Your task to perform on an android device: Add "alienware aurora" to the cart on bestbuy, then select checkout. Image 0: 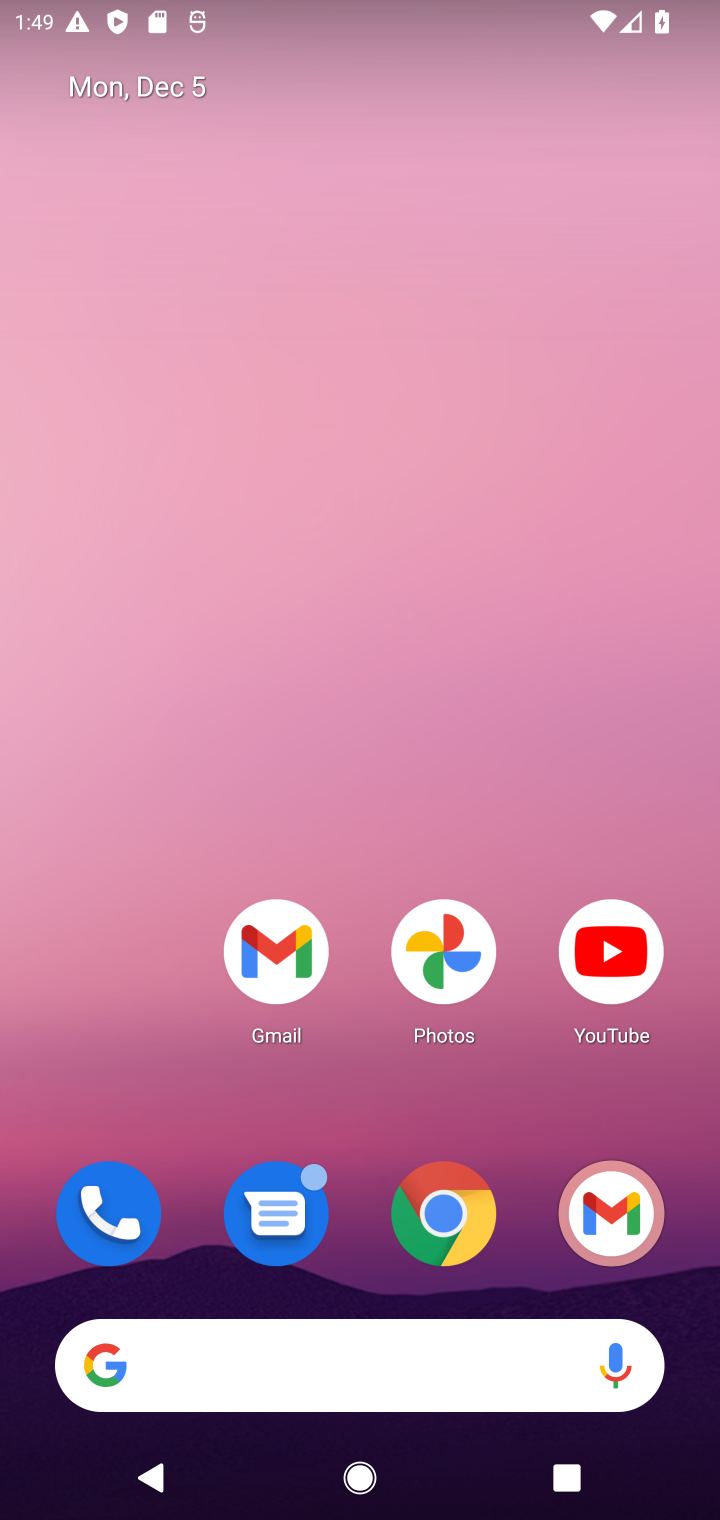
Step 0: click (452, 1215)
Your task to perform on an android device: Add "alienware aurora" to the cart on bestbuy, then select checkout. Image 1: 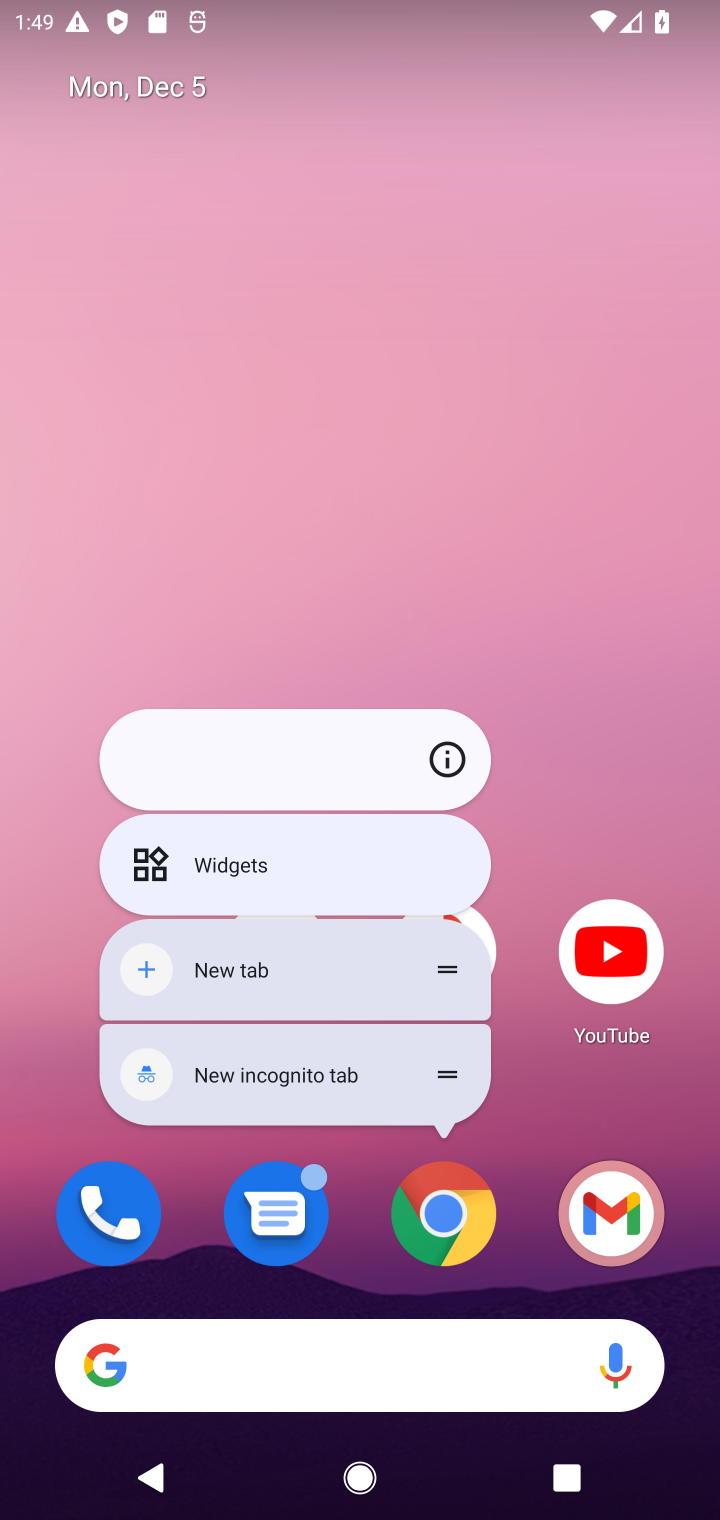
Step 1: click (452, 1215)
Your task to perform on an android device: Add "alienware aurora" to the cart on bestbuy, then select checkout. Image 2: 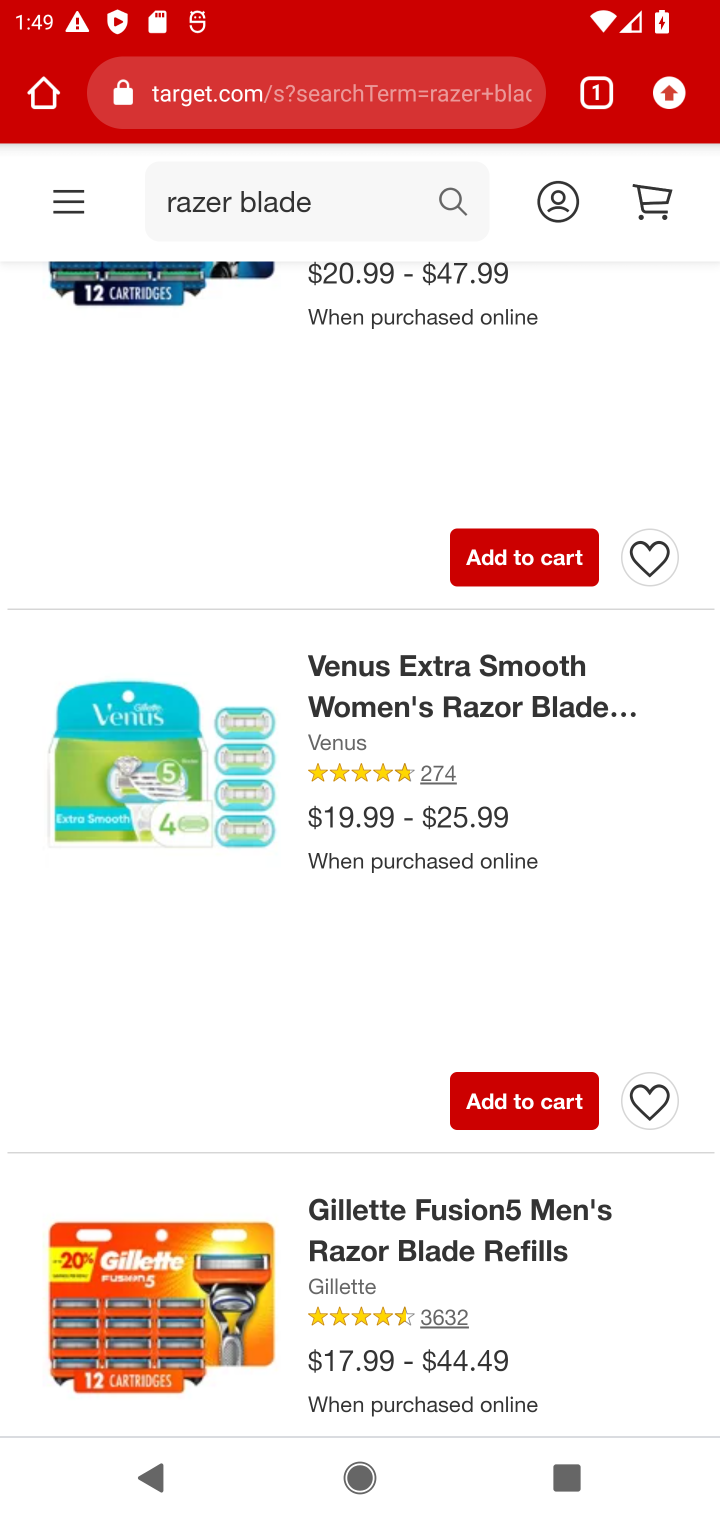
Step 2: click (248, 78)
Your task to perform on an android device: Add "alienware aurora" to the cart on bestbuy, then select checkout. Image 3: 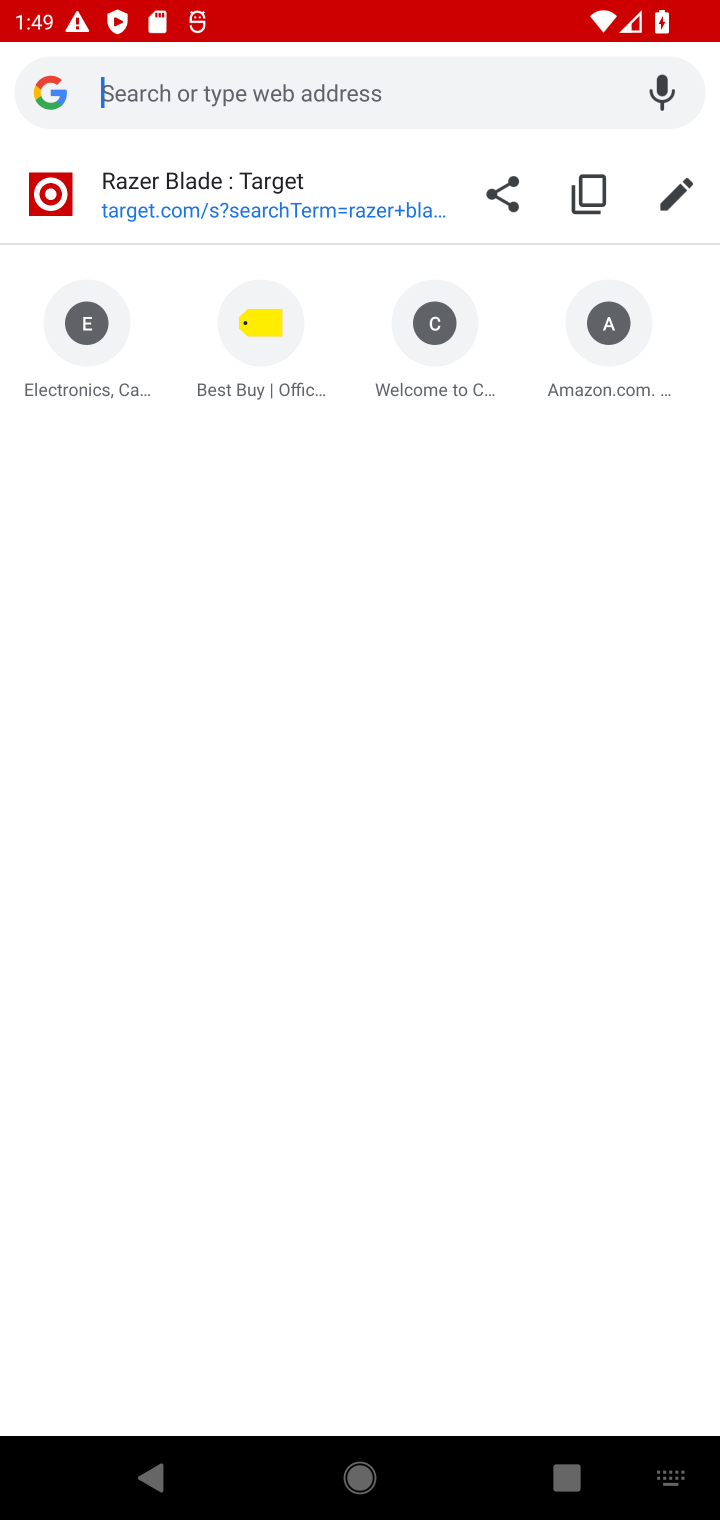
Step 3: click (242, 324)
Your task to perform on an android device: Add "alienware aurora" to the cart on bestbuy, then select checkout. Image 4: 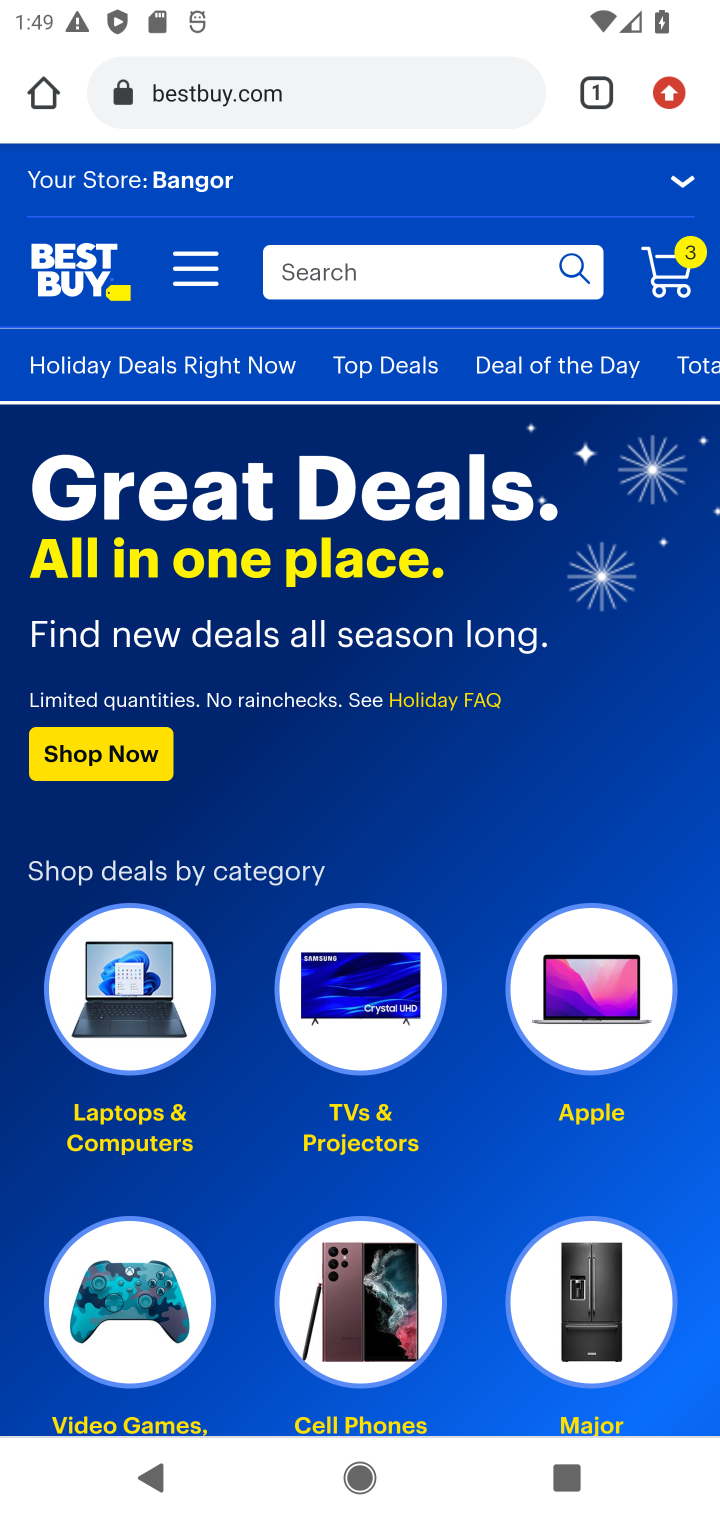
Step 4: click (380, 264)
Your task to perform on an android device: Add "alienware aurora" to the cart on bestbuy, then select checkout. Image 5: 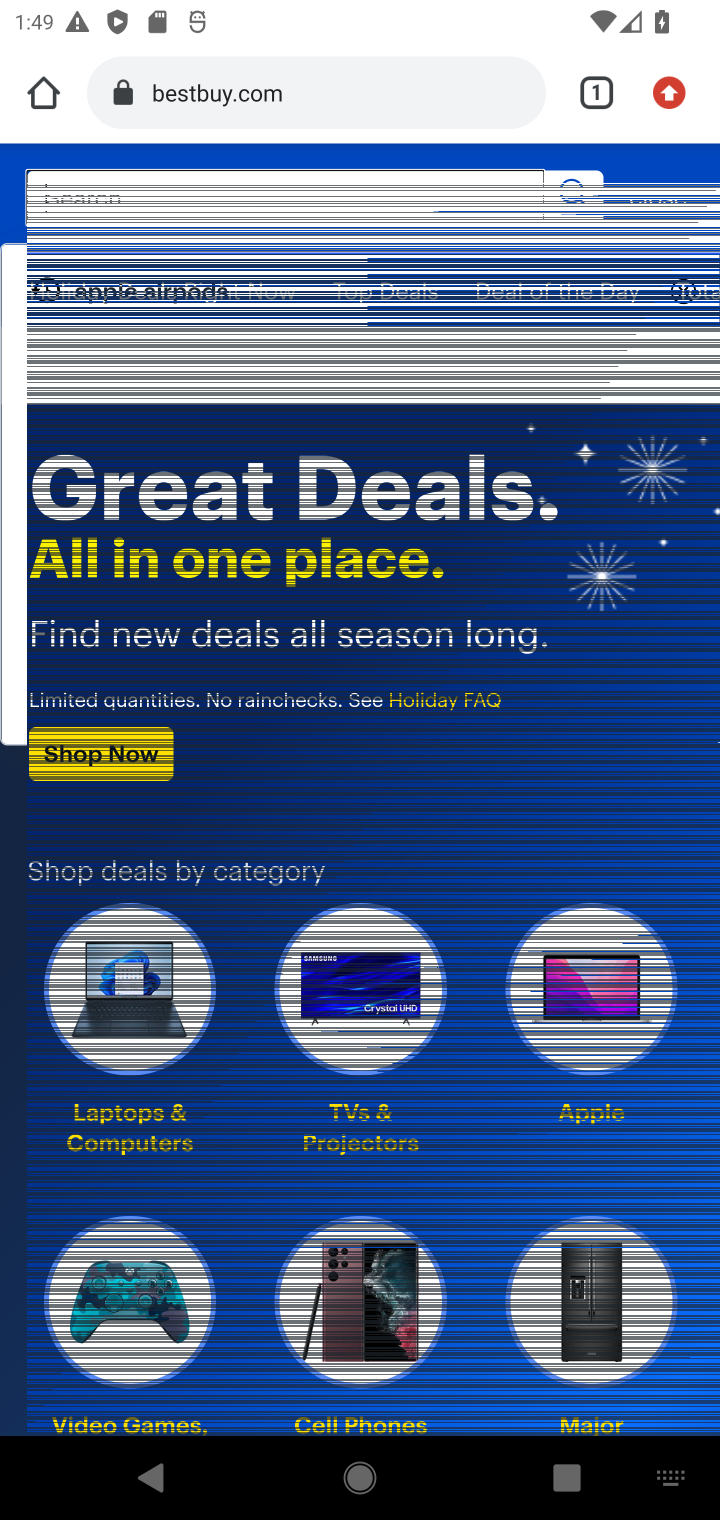
Step 5: type "alienware aurora"
Your task to perform on an android device: Add "alienware aurora" to the cart on bestbuy, then select checkout. Image 6: 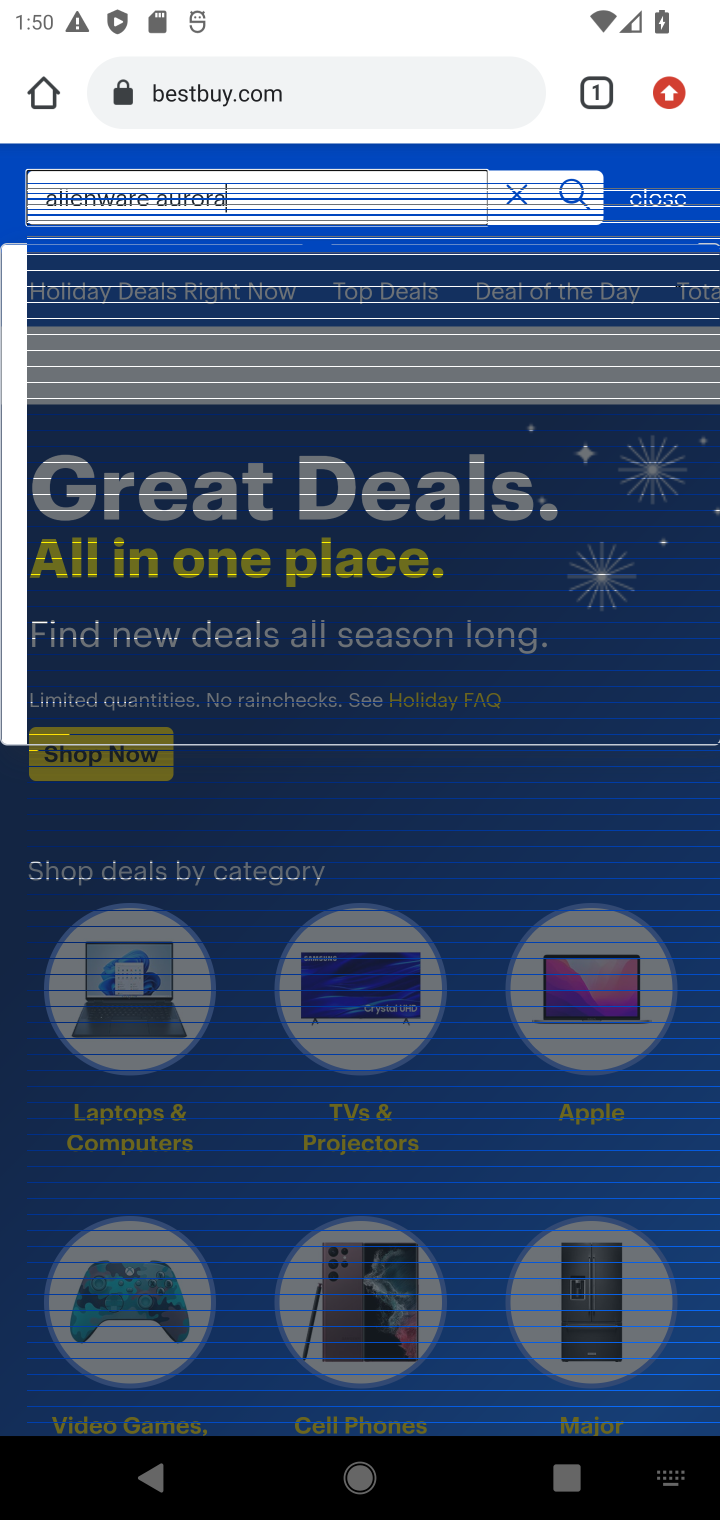
Step 6: click (201, 290)
Your task to perform on an android device: Add "alienware aurora" to the cart on bestbuy, then select checkout. Image 7: 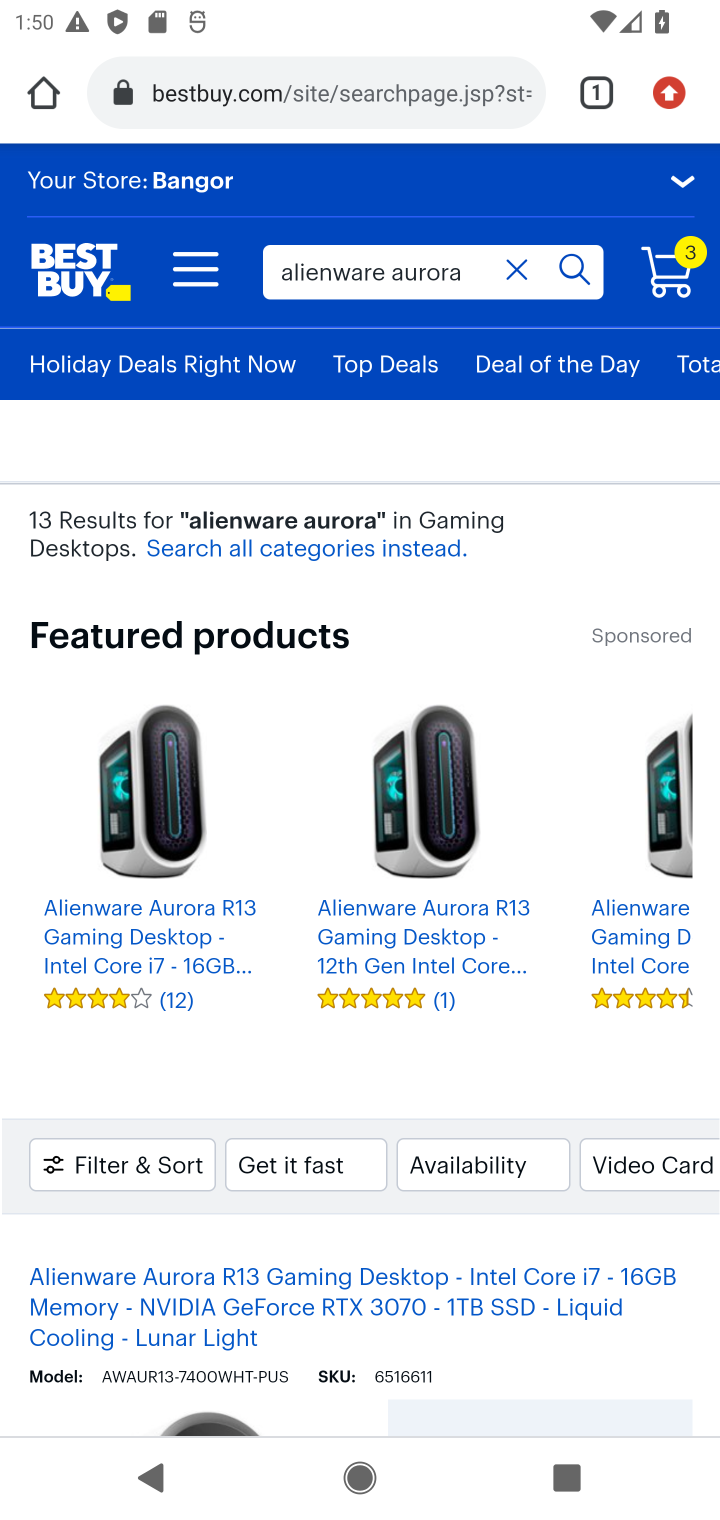
Step 7: drag from (370, 805) to (384, 386)
Your task to perform on an android device: Add "alienware aurora" to the cart on bestbuy, then select checkout. Image 8: 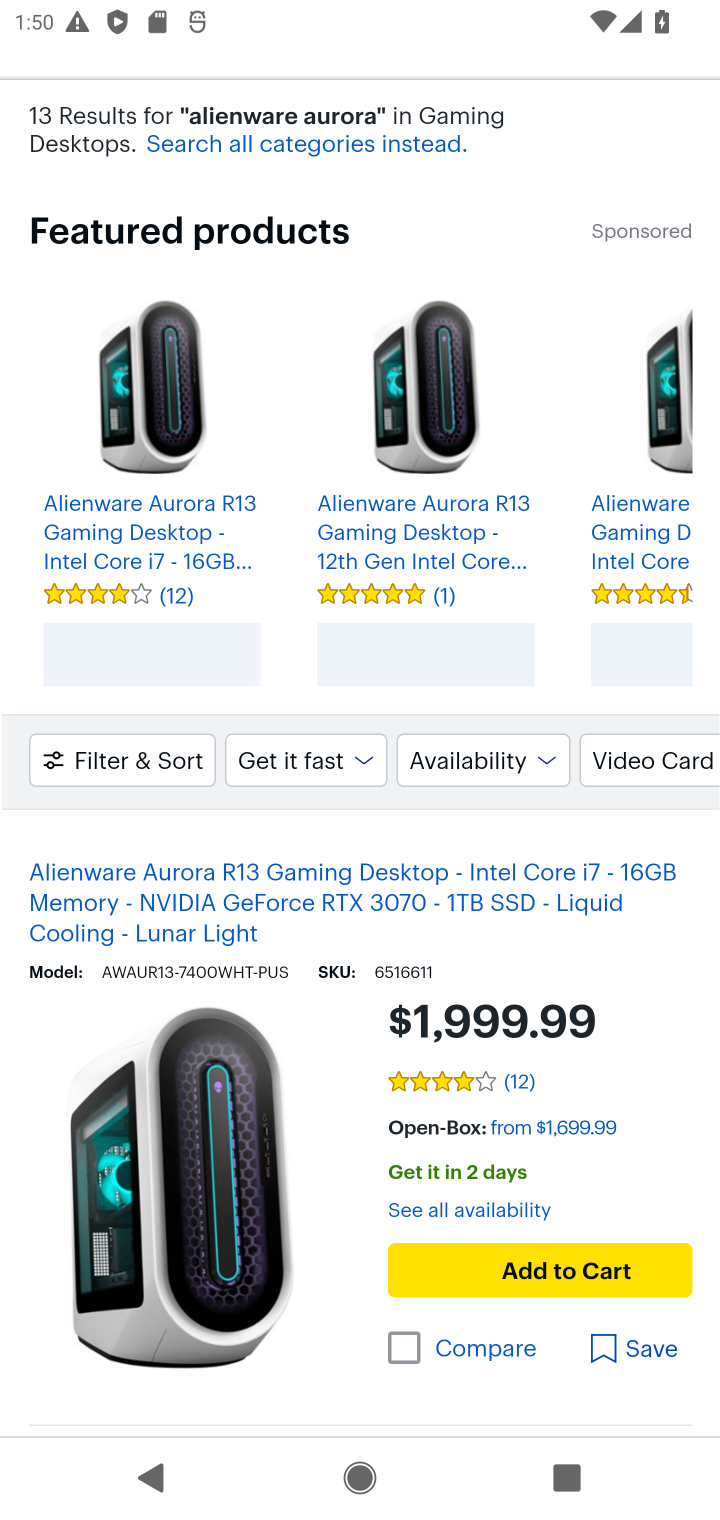
Step 8: click (555, 1183)
Your task to perform on an android device: Add "alienware aurora" to the cart on bestbuy, then select checkout. Image 9: 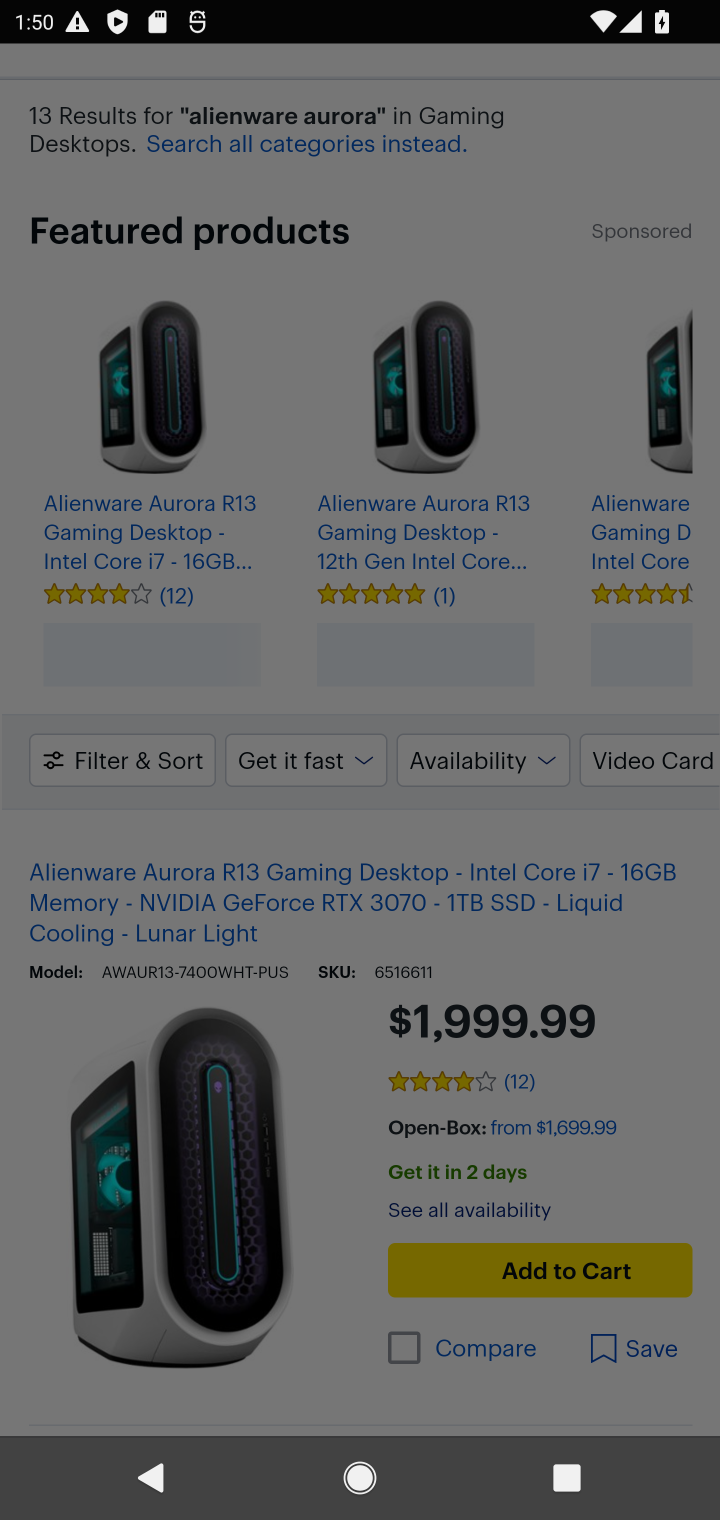
Step 9: click (549, 1259)
Your task to perform on an android device: Add "alienware aurora" to the cart on bestbuy, then select checkout. Image 10: 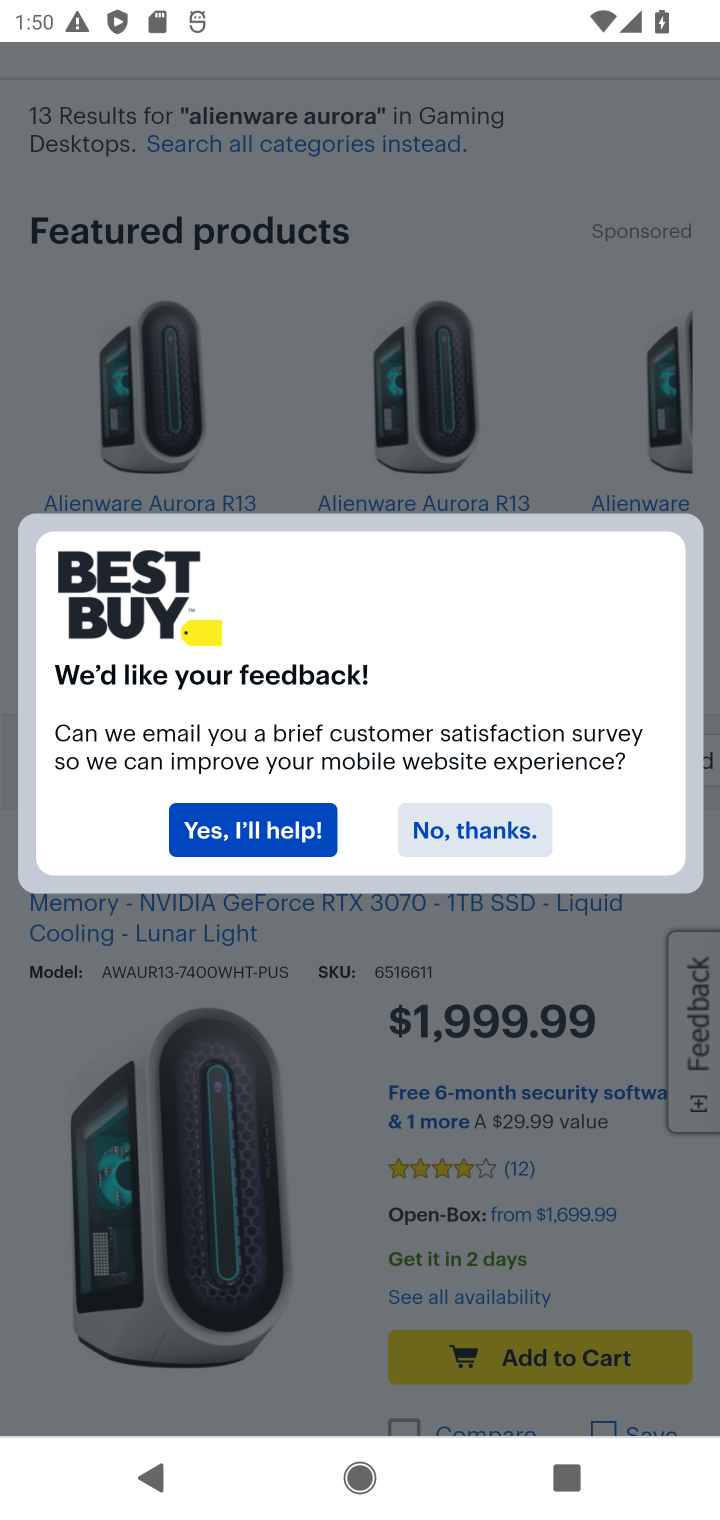
Step 10: click (465, 837)
Your task to perform on an android device: Add "alienware aurora" to the cart on bestbuy, then select checkout. Image 11: 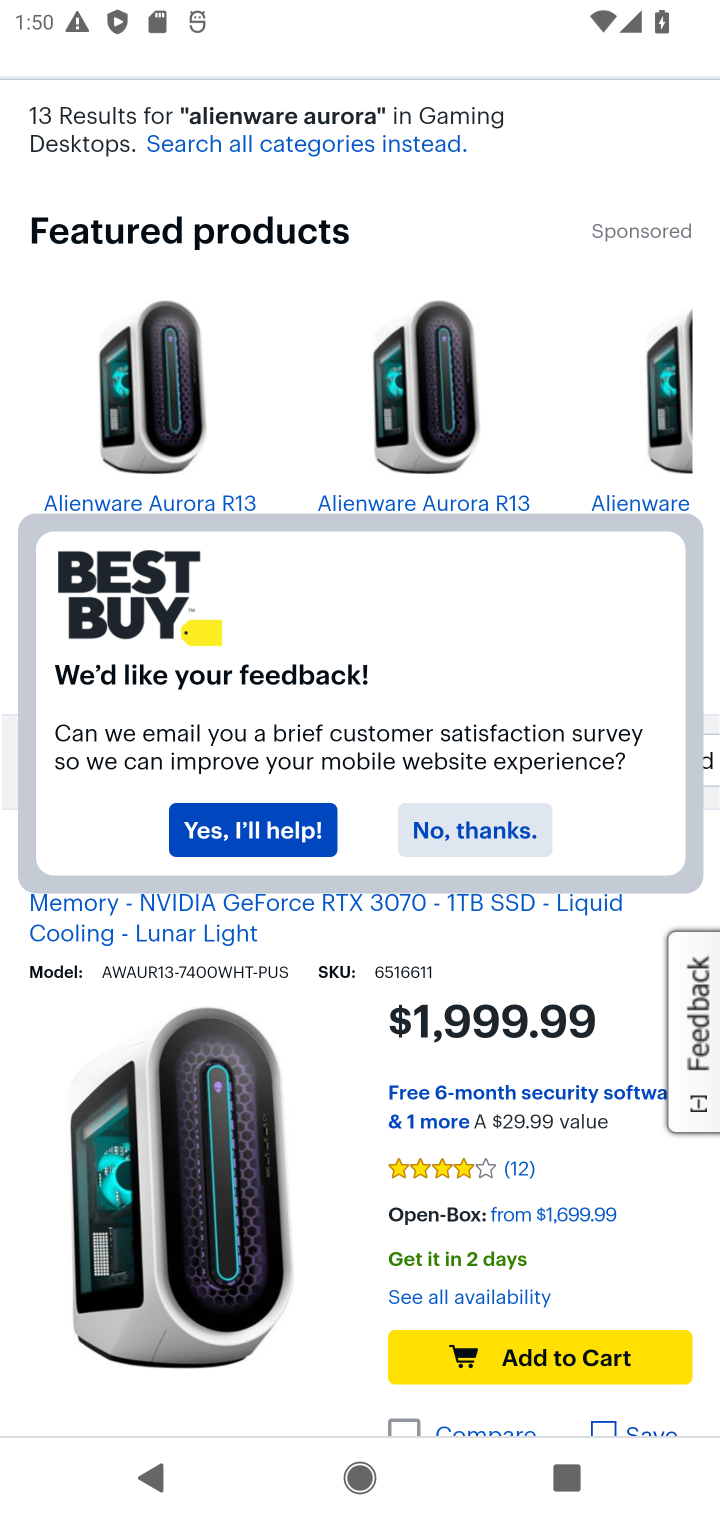
Step 11: click (507, 1350)
Your task to perform on an android device: Add "alienware aurora" to the cart on bestbuy, then select checkout. Image 12: 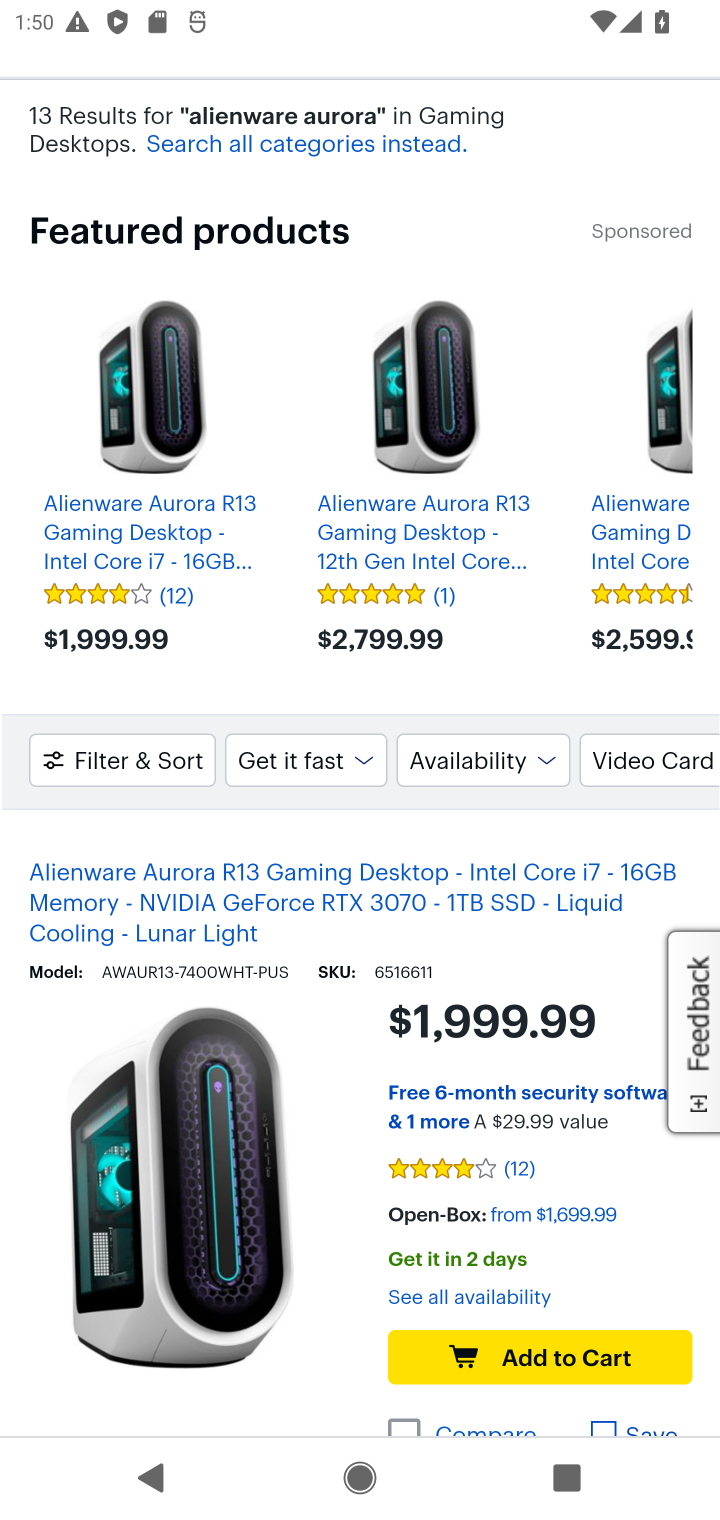
Step 12: click (512, 1357)
Your task to perform on an android device: Add "alienware aurora" to the cart on bestbuy, then select checkout. Image 13: 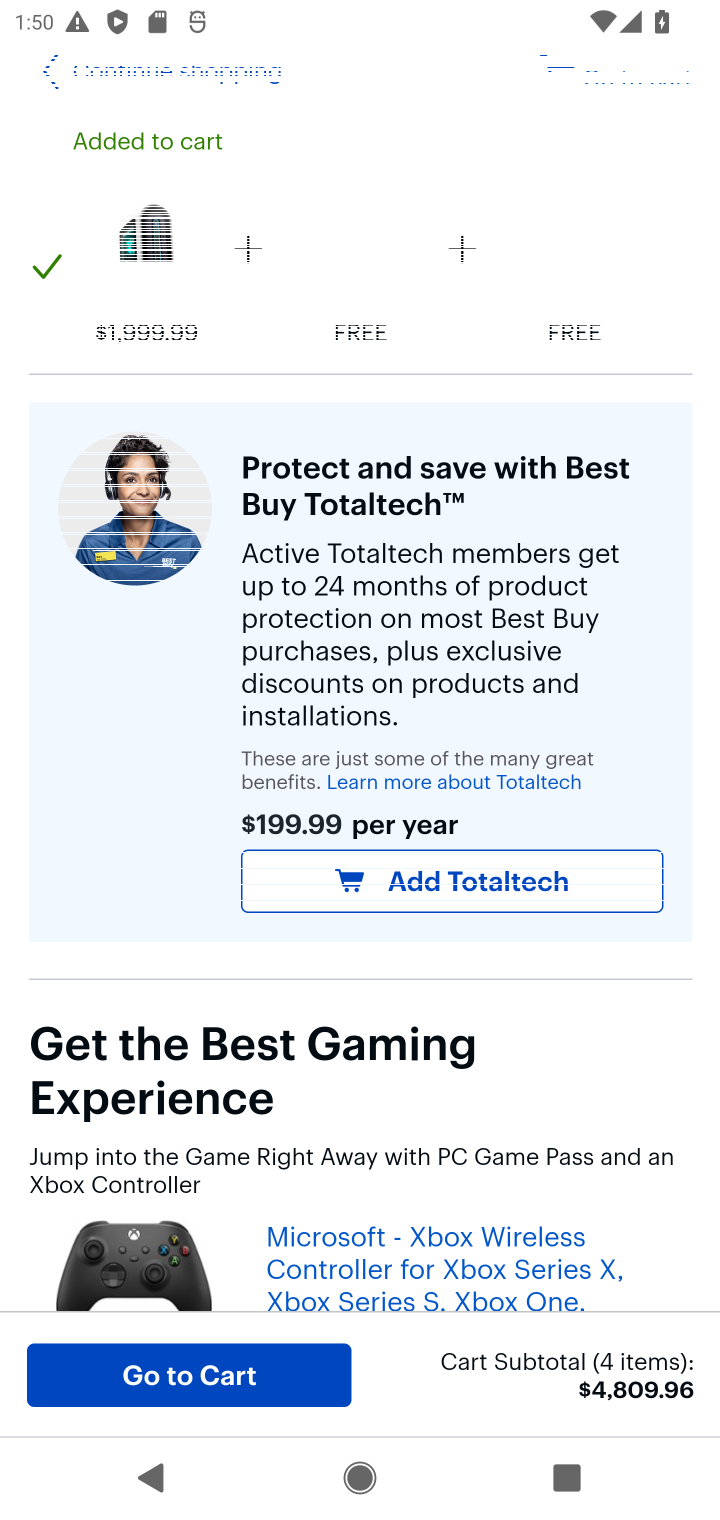
Step 13: click (645, 87)
Your task to perform on an android device: Add "alienware aurora" to the cart on bestbuy, then select checkout. Image 14: 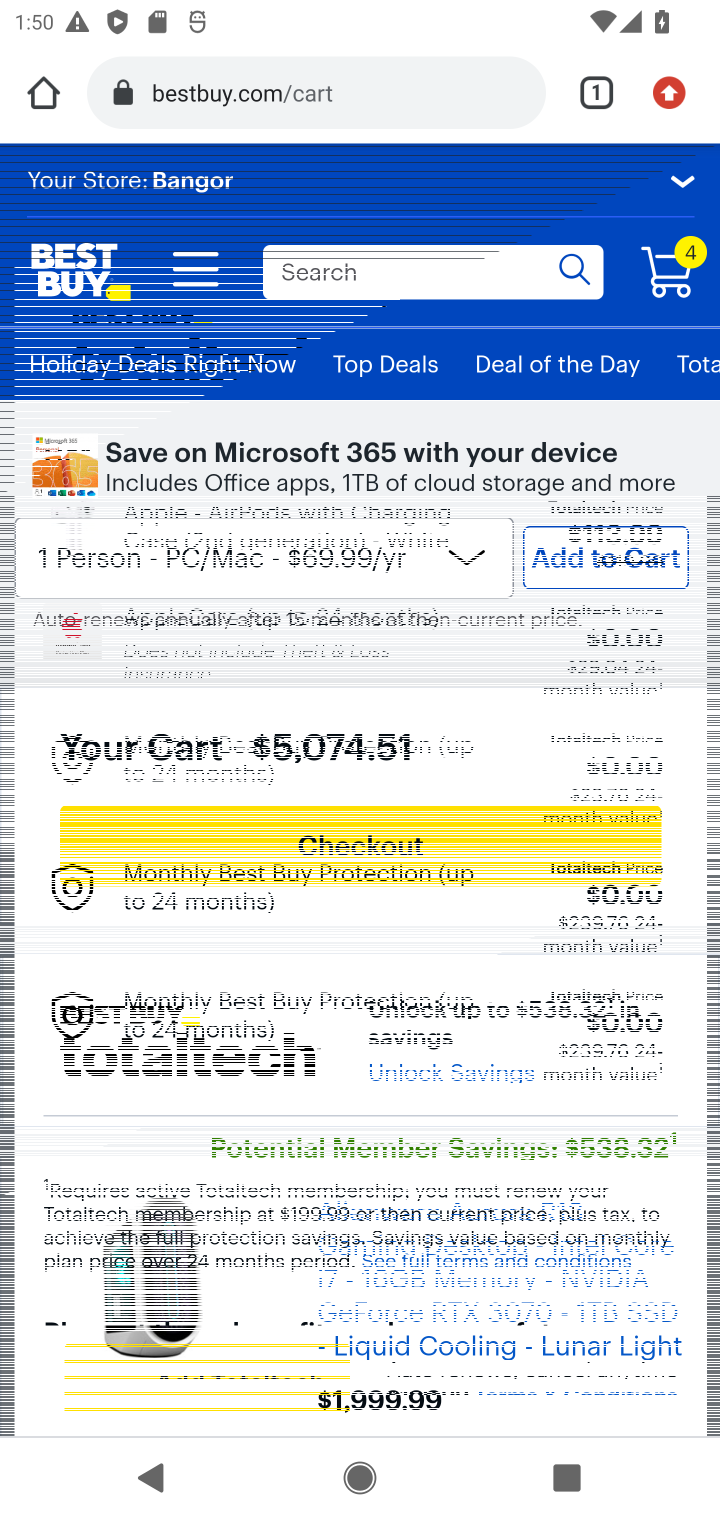
Step 14: click (399, 833)
Your task to perform on an android device: Add "alienware aurora" to the cart on bestbuy, then select checkout. Image 15: 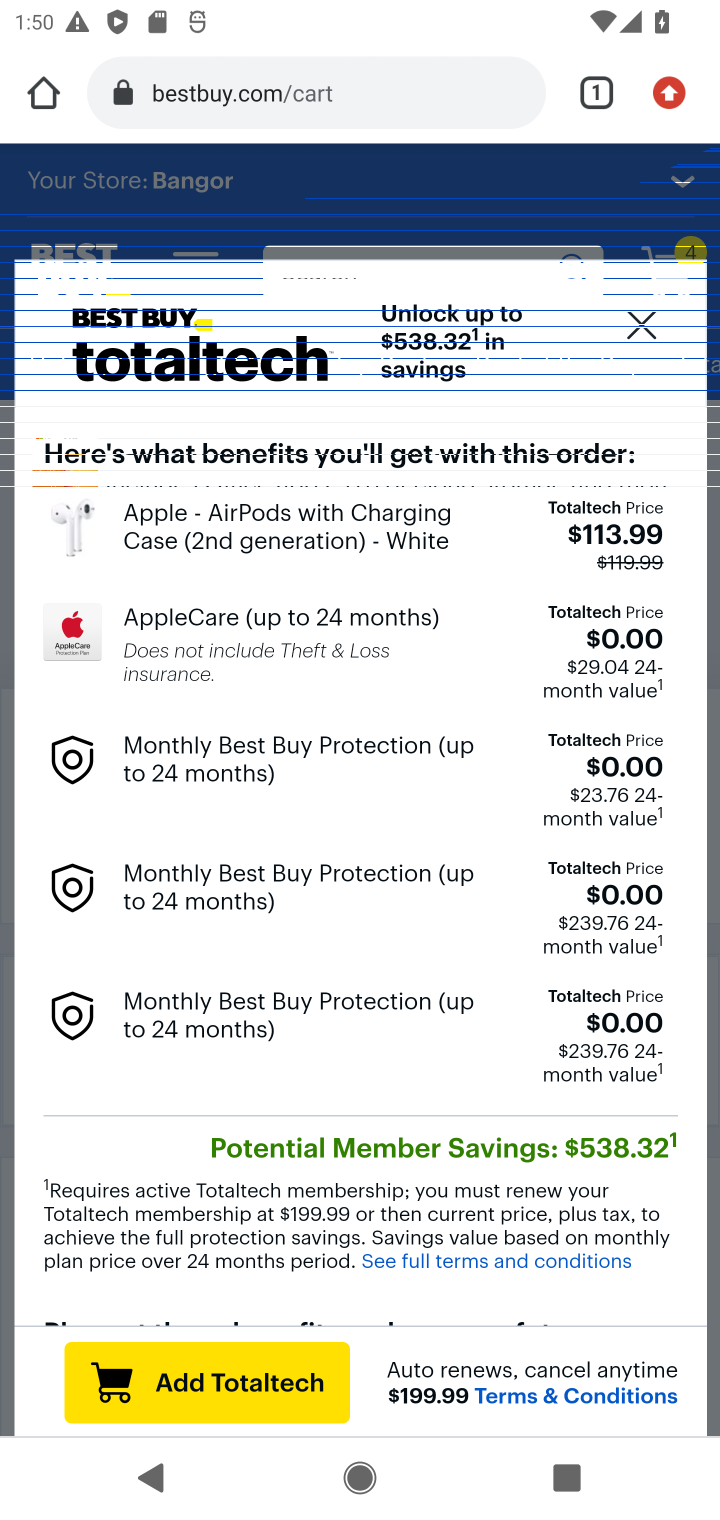
Step 15: click (647, 332)
Your task to perform on an android device: Add "alienware aurora" to the cart on bestbuy, then select checkout. Image 16: 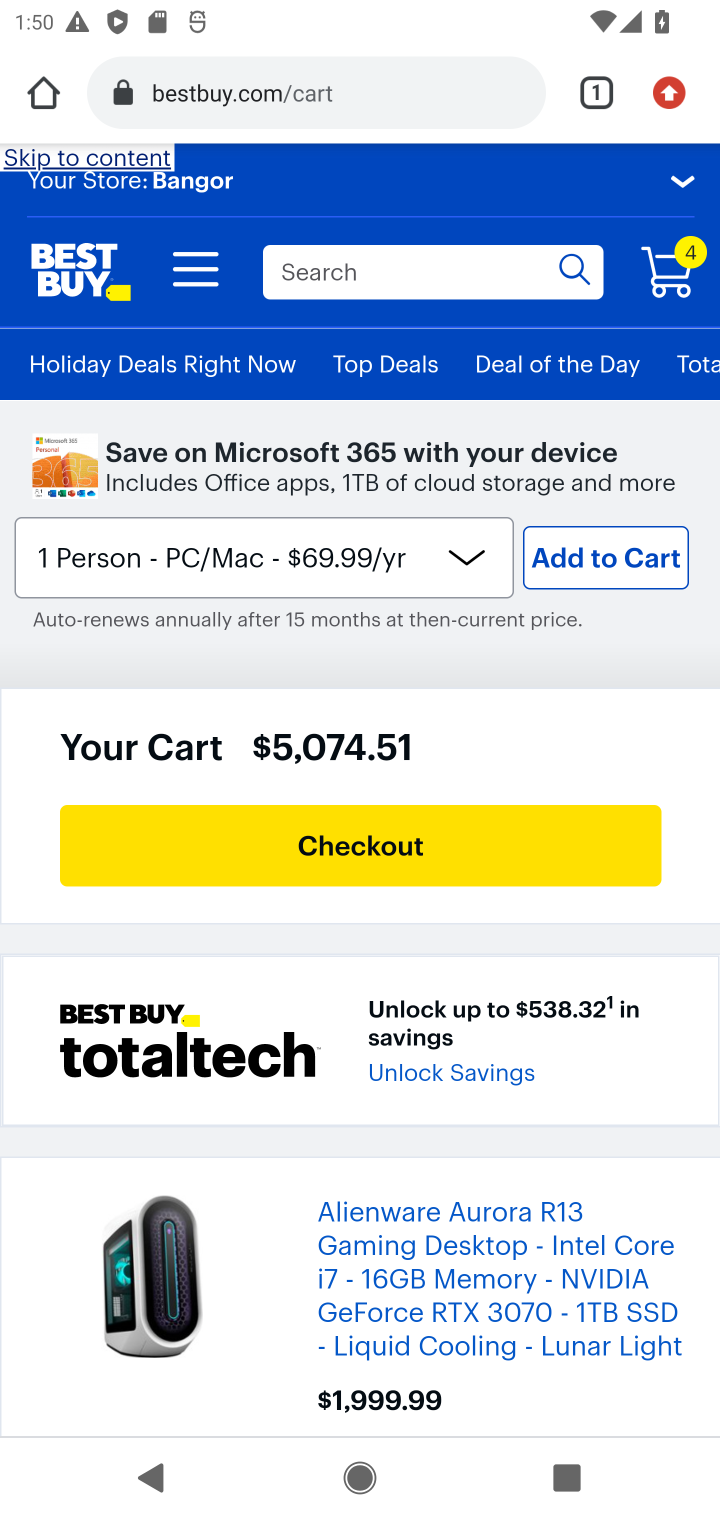
Step 16: click (350, 872)
Your task to perform on an android device: Add "alienware aurora" to the cart on bestbuy, then select checkout. Image 17: 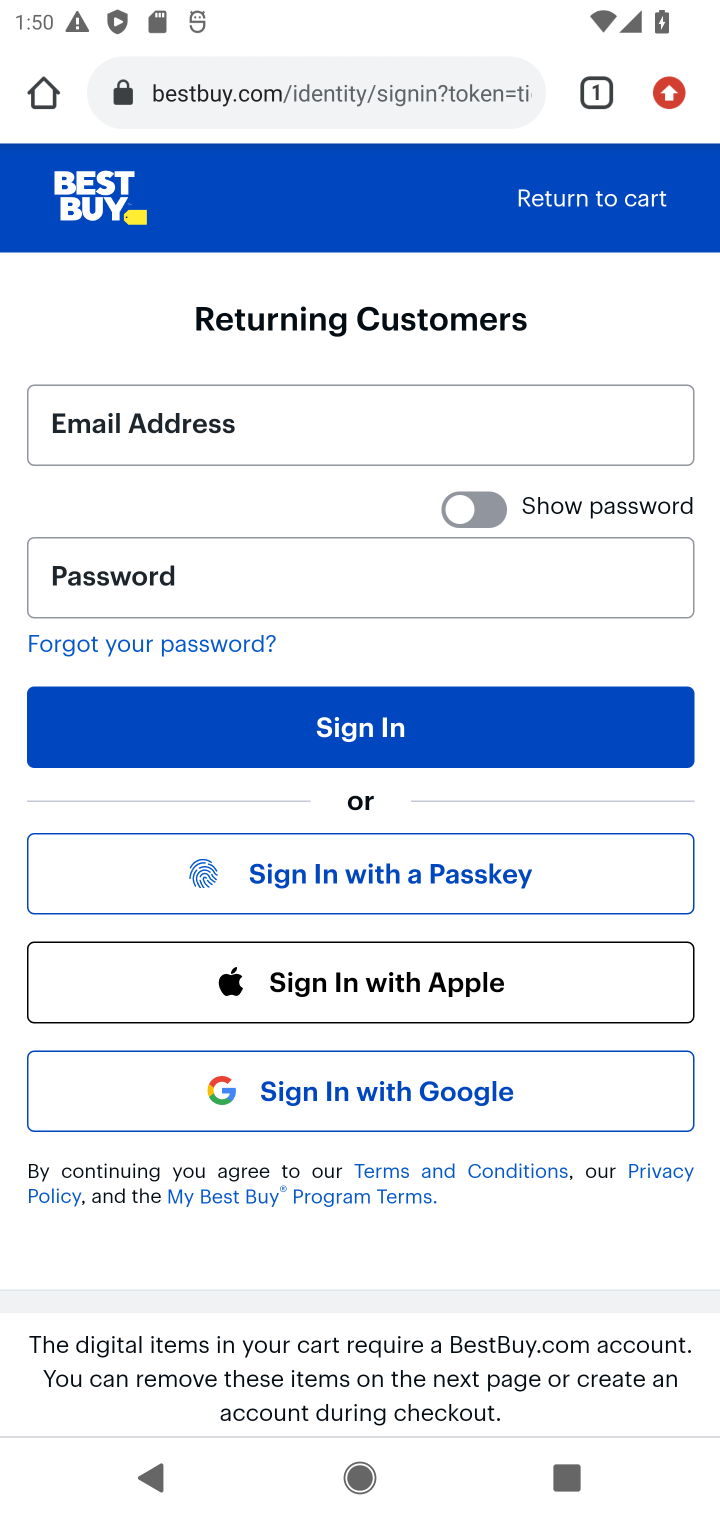
Step 17: task complete